Your task to perform on an android device: Open Yahoo.com Image 0: 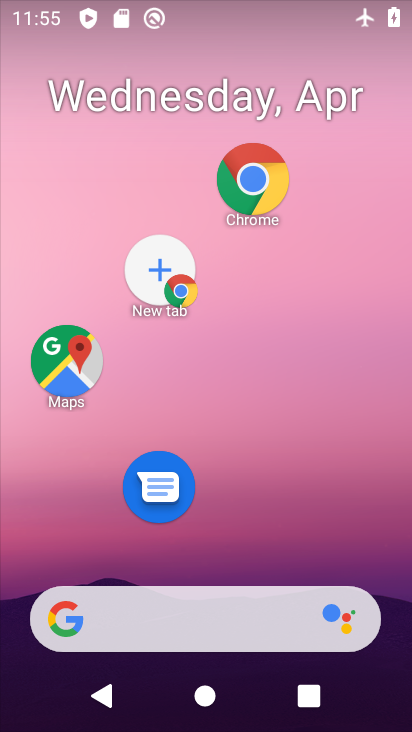
Step 0: drag from (252, 686) to (266, 260)
Your task to perform on an android device: Open Yahoo.com Image 1: 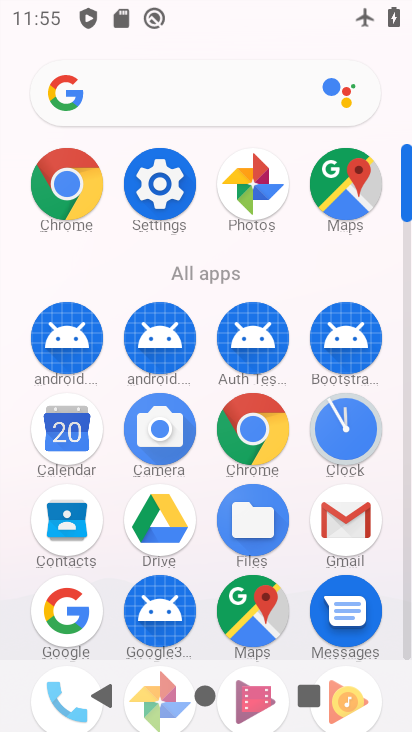
Step 1: drag from (276, 556) to (227, 207)
Your task to perform on an android device: Open Yahoo.com Image 2: 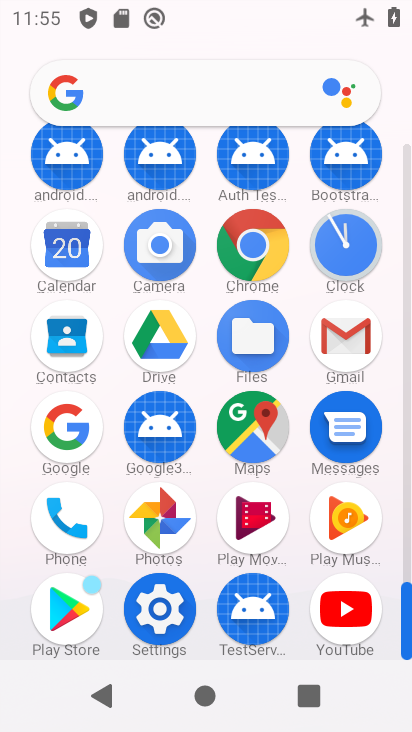
Step 2: click (244, 236)
Your task to perform on an android device: Open Yahoo.com Image 3: 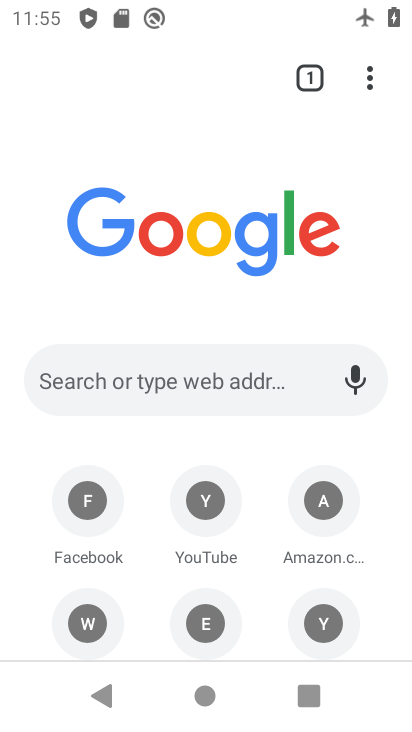
Step 3: drag from (265, 610) to (287, 277)
Your task to perform on an android device: Open Yahoo.com Image 4: 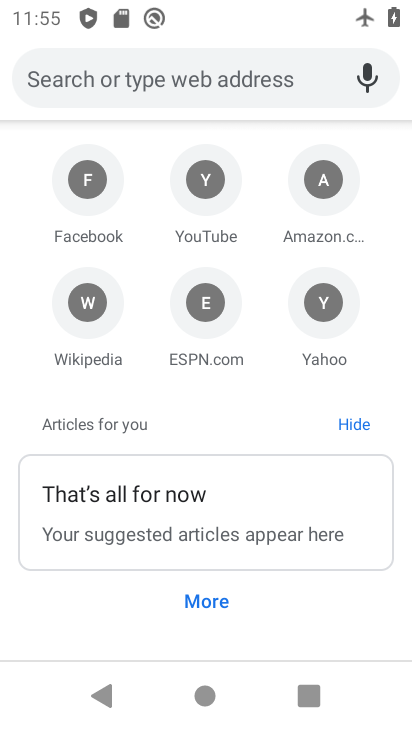
Step 4: drag from (267, 524) to (212, 132)
Your task to perform on an android device: Open Yahoo.com Image 5: 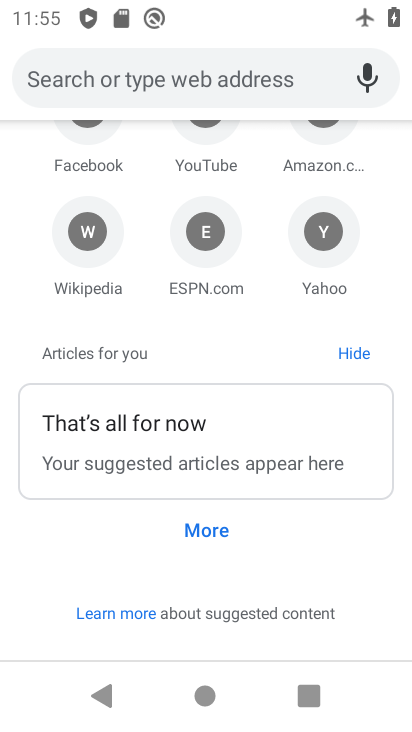
Step 5: click (308, 235)
Your task to perform on an android device: Open Yahoo.com Image 6: 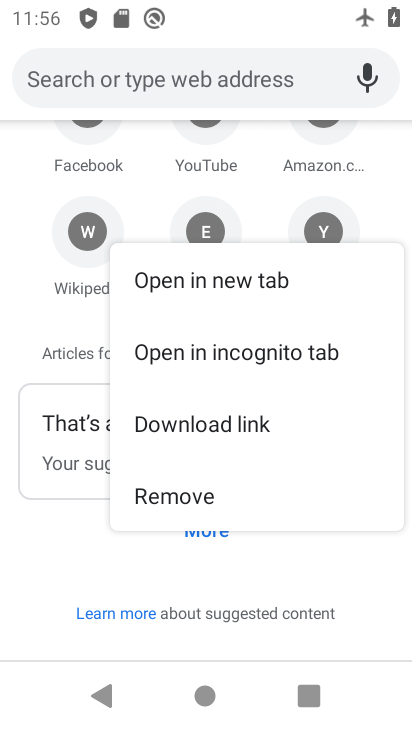
Step 6: click (209, 275)
Your task to perform on an android device: Open Yahoo.com Image 7: 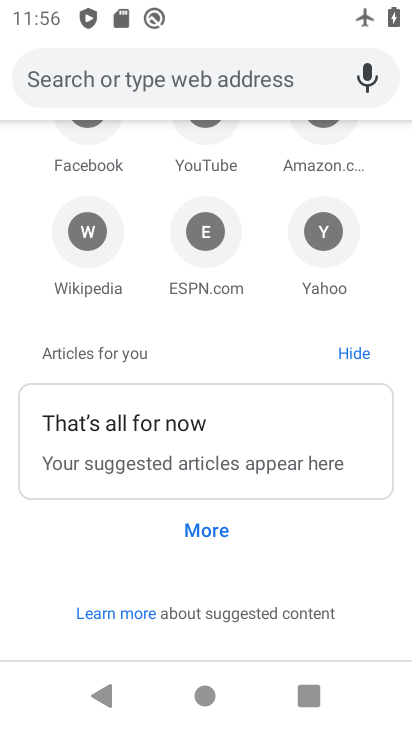
Step 7: click (219, 280)
Your task to perform on an android device: Open Yahoo.com Image 8: 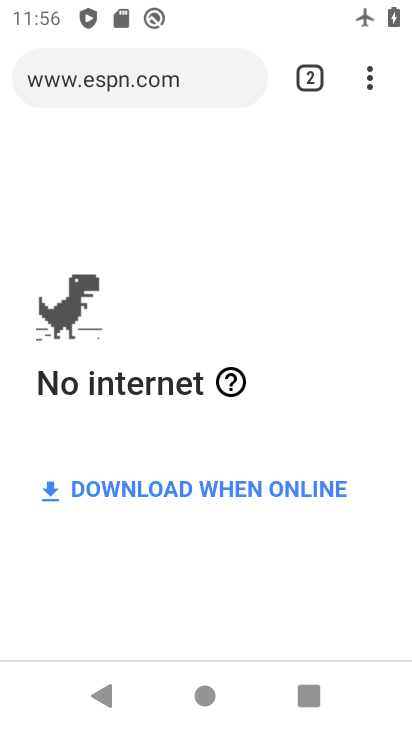
Step 8: task complete